Your task to perform on an android device: change text size in settings app Image 0: 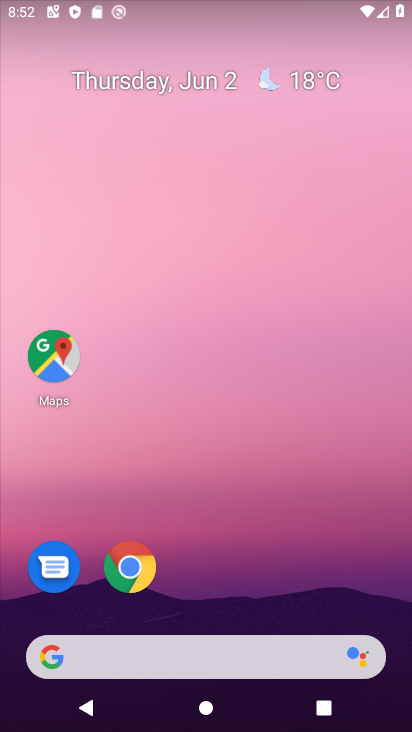
Step 0: drag from (209, 608) to (314, 19)
Your task to perform on an android device: change text size in settings app Image 1: 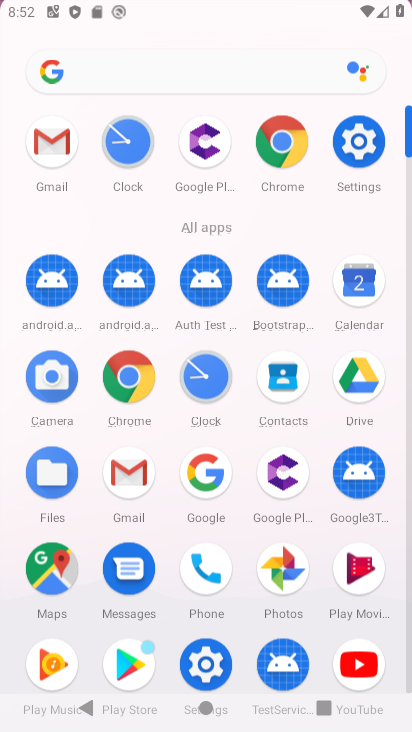
Step 1: click (202, 661)
Your task to perform on an android device: change text size in settings app Image 2: 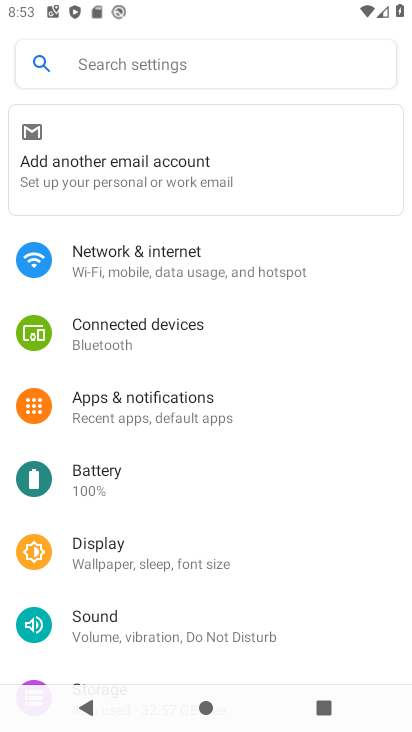
Step 2: click (147, 566)
Your task to perform on an android device: change text size in settings app Image 3: 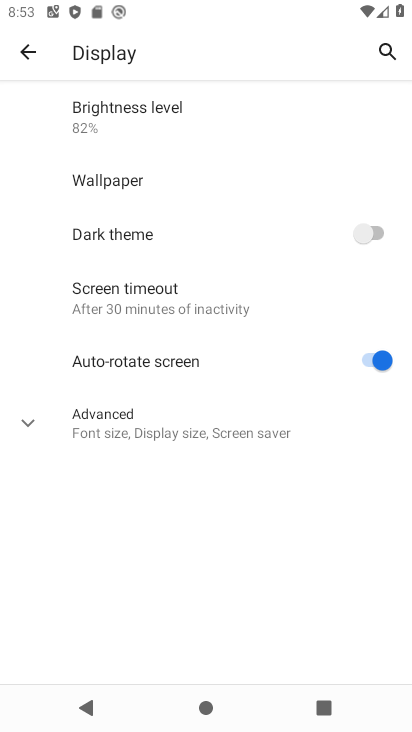
Step 3: click (143, 420)
Your task to perform on an android device: change text size in settings app Image 4: 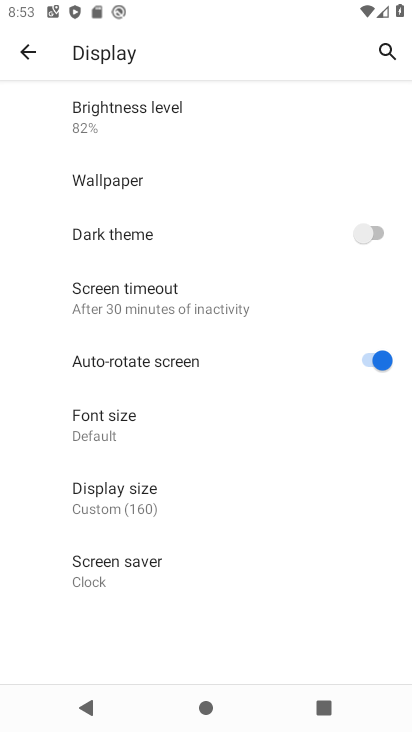
Step 4: click (102, 433)
Your task to perform on an android device: change text size in settings app Image 5: 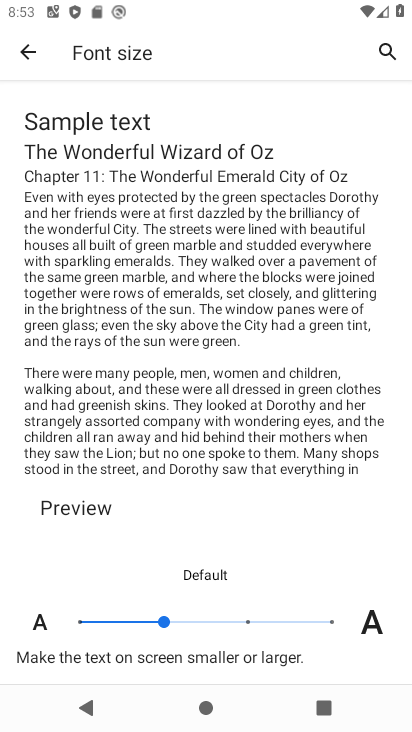
Step 5: click (89, 622)
Your task to perform on an android device: change text size in settings app Image 6: 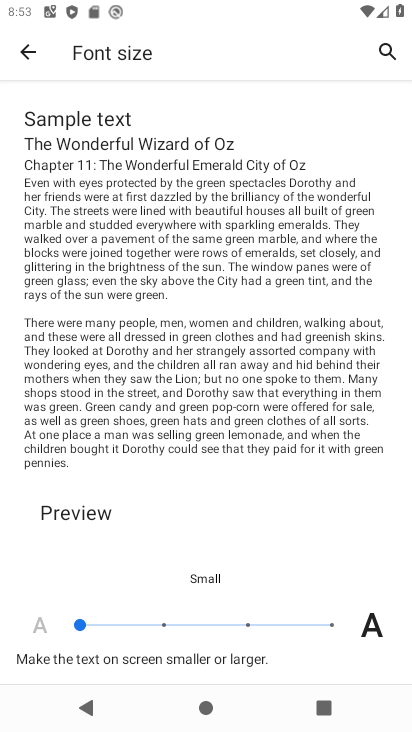
Step 6: task complete